Your task to perform on an android device: Show me popular games on the Play Store Image 0: 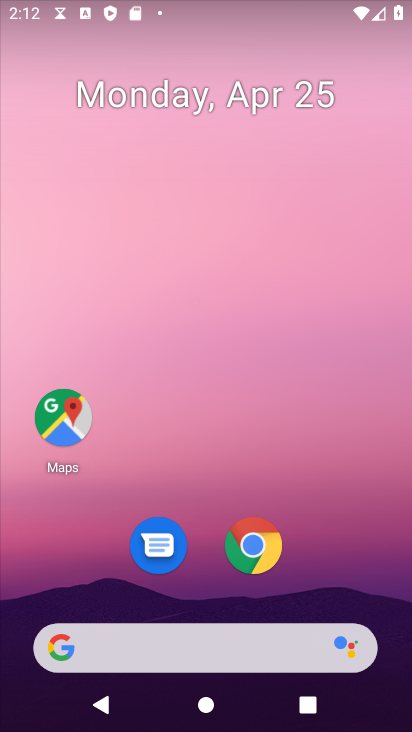
Step 0: drag from (45, 265) to (380, 247)
Your task to perform on an android device: Show me popular games on the Play Store Image 1: 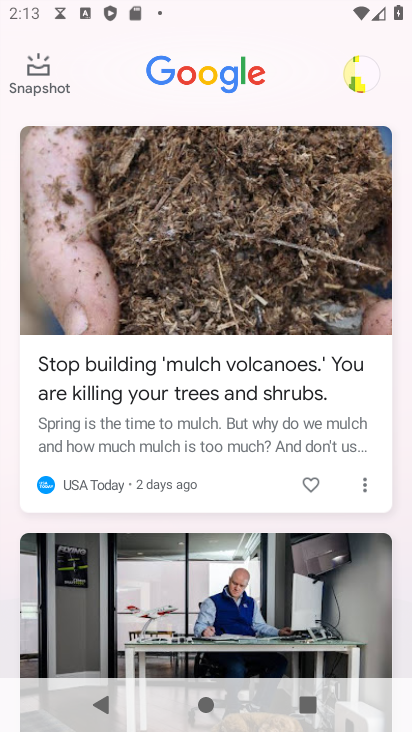
Step 1: press home button
Your task to perform on an android device: Show me popular games on the Play Store Image 2: 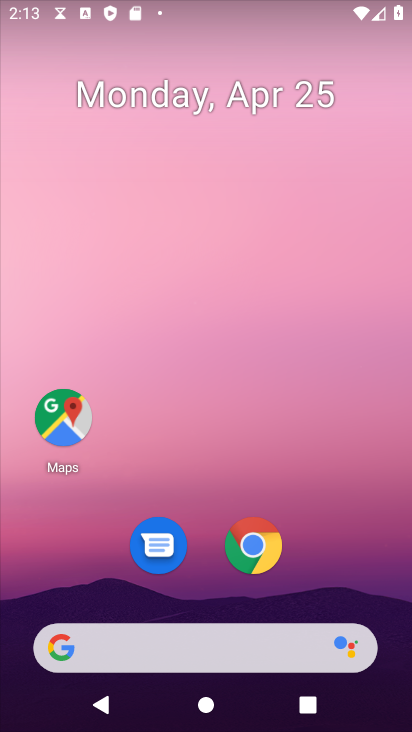
Step 2: drag from (176, 633) to (132, 88)
Your task to perform on an android device: Show me popular games on the Play Store Image 3: 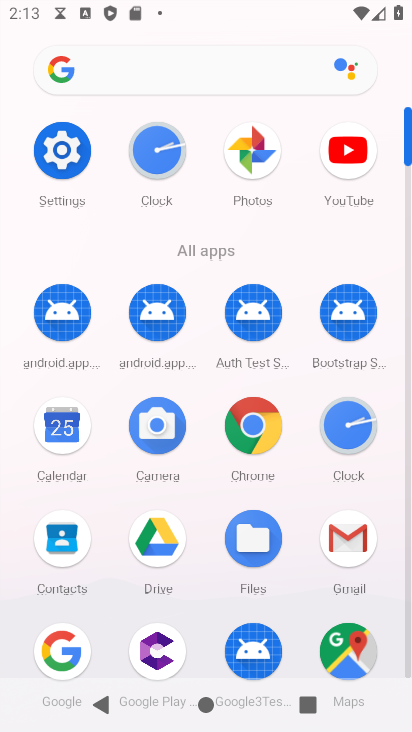
Step 3: drag from (220, 595) to (183, 99)
Your task to perform on an android device: Show me popular games on the Play Store Image 4: 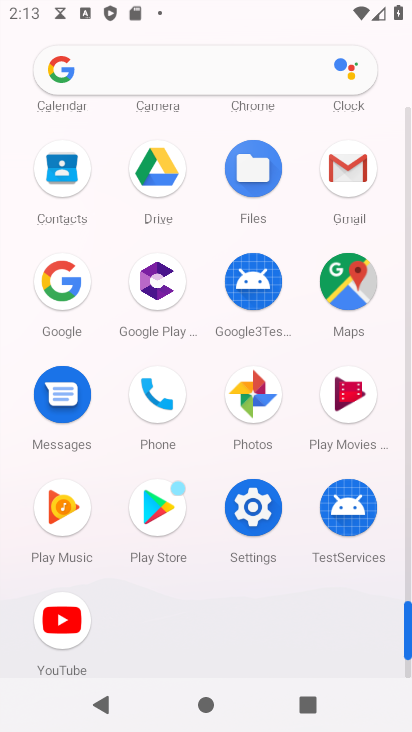
Step 4: click (154, 515)
Your task to perform on an android device: Show me popular games on the Play Store Image 5: 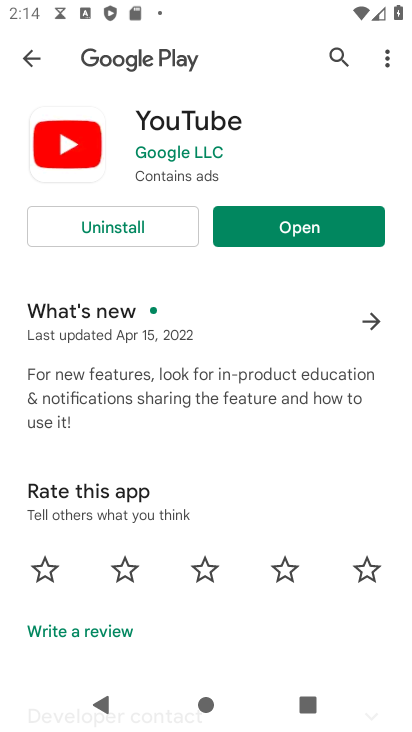
Step 5: click (38, 60)
Your task to perform on an android device: Show me popular games on the Play Store Image 6: 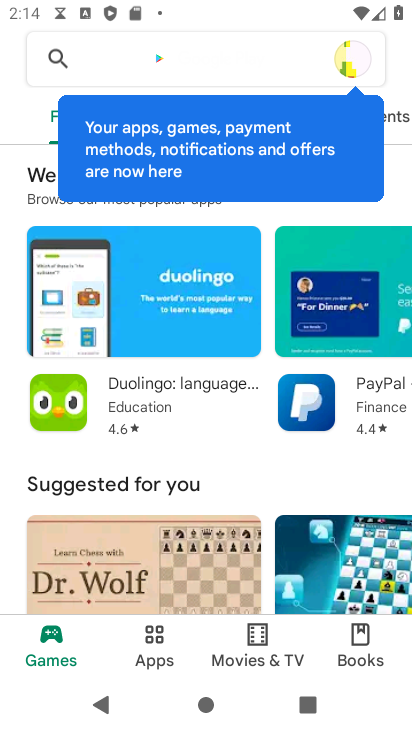
Step 6: drag from (202, 496) to (259, 19)
Your task to perform on an android device: Show me popular games on the Play Store Image 7: 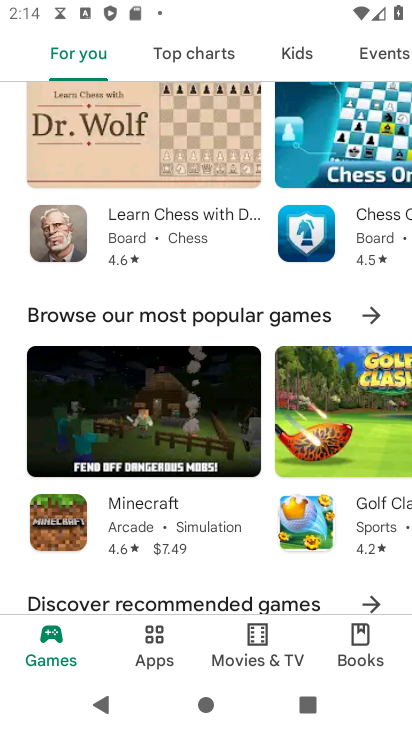
Step 7: click (359, 320)
Your task to perform on an android device: Show me popular games on the Play Store Image 8: 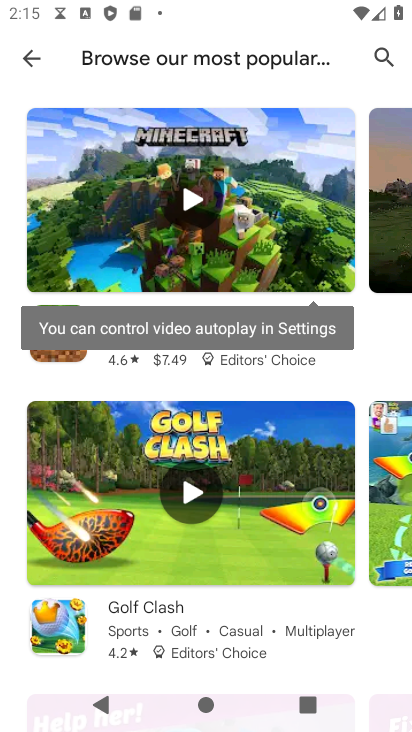
Step 8: task complete